Your task to perform on an android device: Open my contact list Image 0: 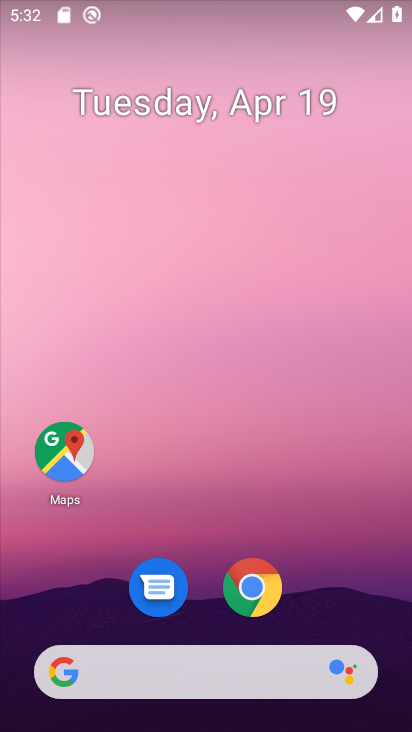
Step 0: drag from (345, 604) to (365, 56)
Your task to perform on an android device: Open my contact list Image 1: 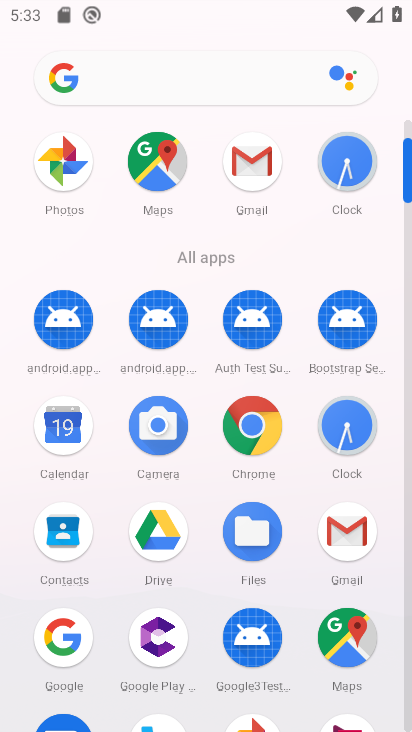
Step 1: click (61, 534)
Your task to perform on an android device: Open my contact list Image 2: 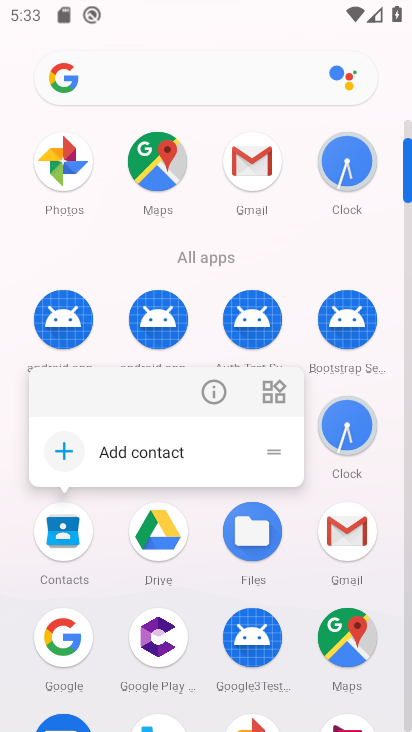
Step 2: click (61, 534)
Your task to perform on an android device: Open my contact list Image 3: 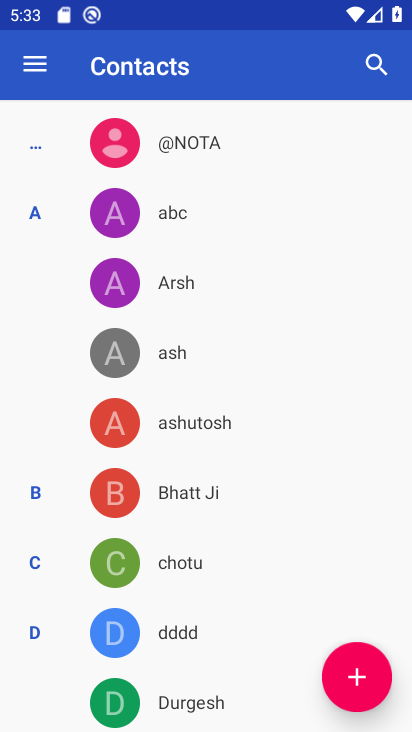
Step 3: task complete